Your task to perform on an android device: turn on sleep mode Image 0: 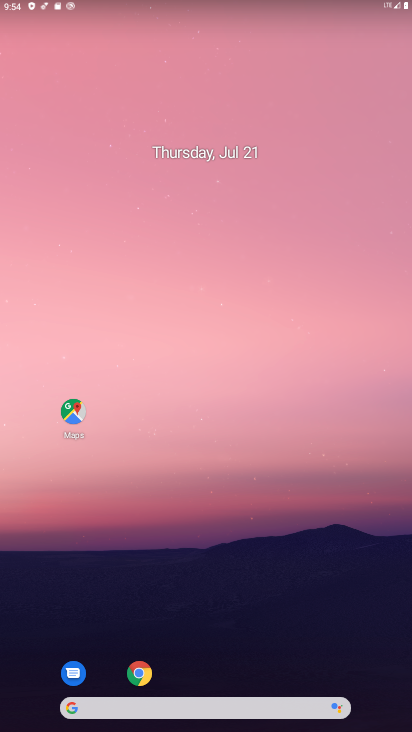
Step 0: drag from (205, 724) to (185, 222)
Your task to perform on an android device: turn on sleep mode Image 1: 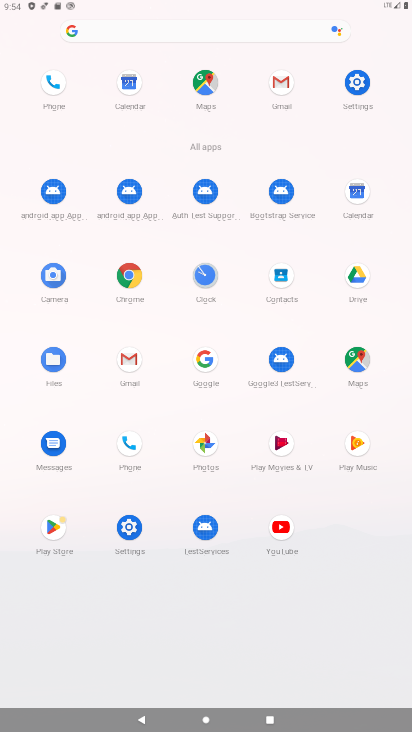
Step 1: click (361, 79)
Your task to perform on an android device: turn on sleep mode Image 2: 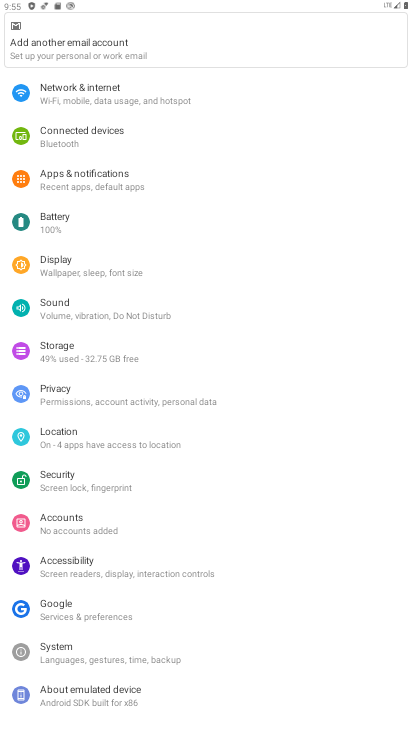
Step 2: click (104, 275)
Your task to perform on an android device: turn on sleep mode Image 3: 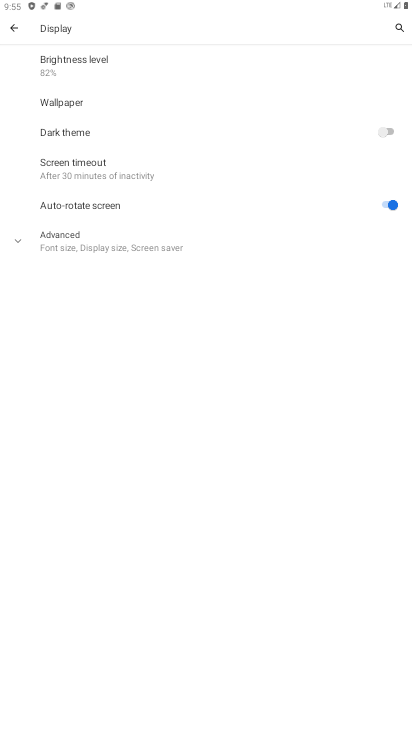
Step 3: click (133, 247)
Your task to perform on an android device: turn on sleep mode Image 4: 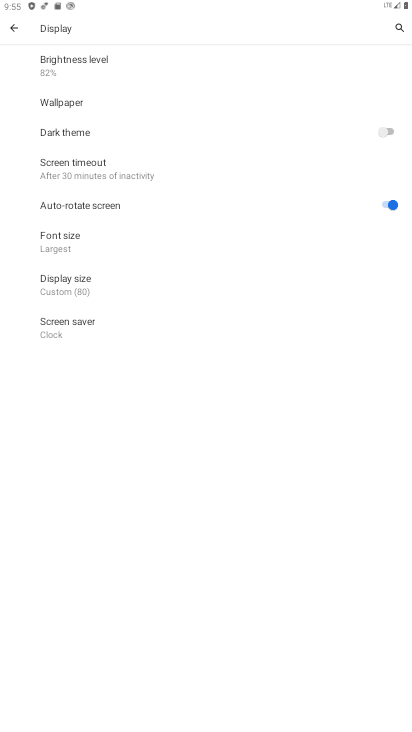
Step 4: task complete